Your task to perform on an android device: turn off notifications settings in the gmail app Image 0: 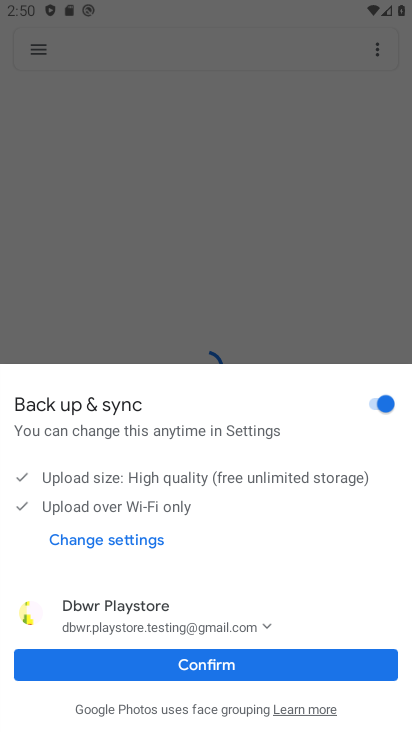
Step 0: click (241, 664)
Your task to perform on an android device: turn off notifications settings in the gmail app Image 1: 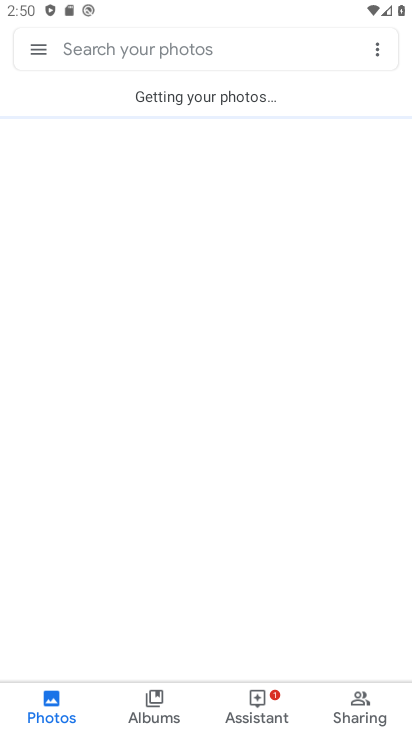
Step 1: click (32, 47)
Your task to perform on an android device: turn off notifications settings in the gmail app Image 2: 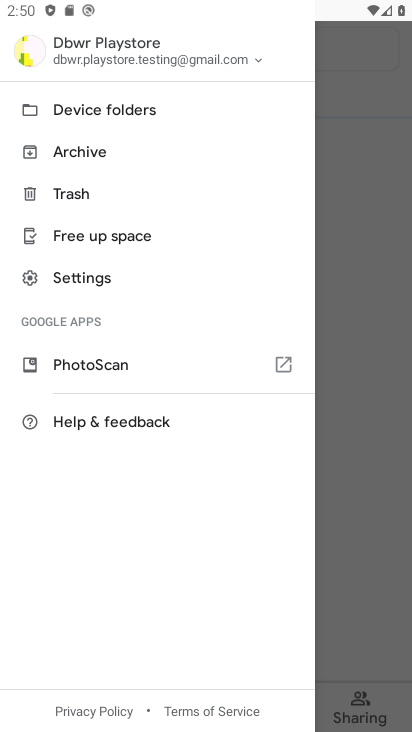
Step 2: click (96, 274)
Your task to perform on an android device: turn off notifications settings in the gmail app Image 3: 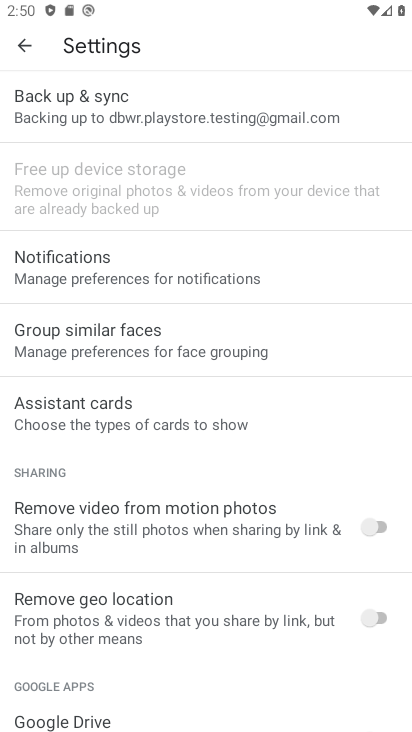
Step 3: click (187, 270)
Your task to perform on an android device: turn off notifications settings in the gmail app Image 4: 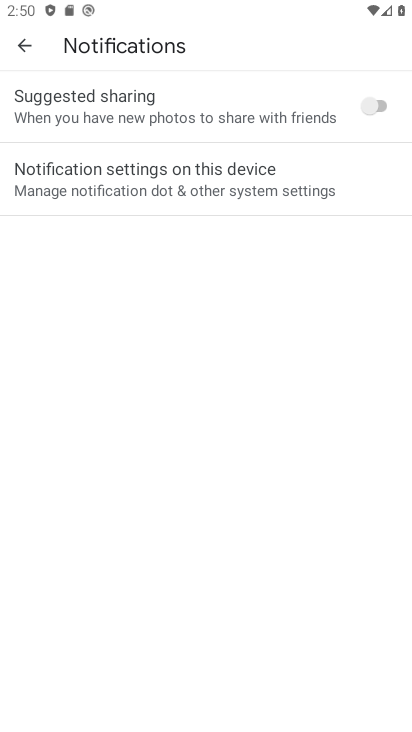
Step 4: click (250, 179)
Your task to perform on an android device: turn off notifications settings in the gmail app Image 5: 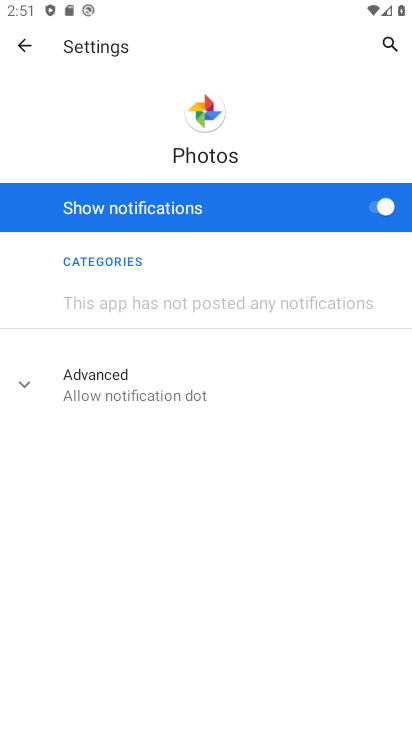
Step 5: press back button
Your task to perform on an android device: turn off notifications settings in the gmail app Image 6: 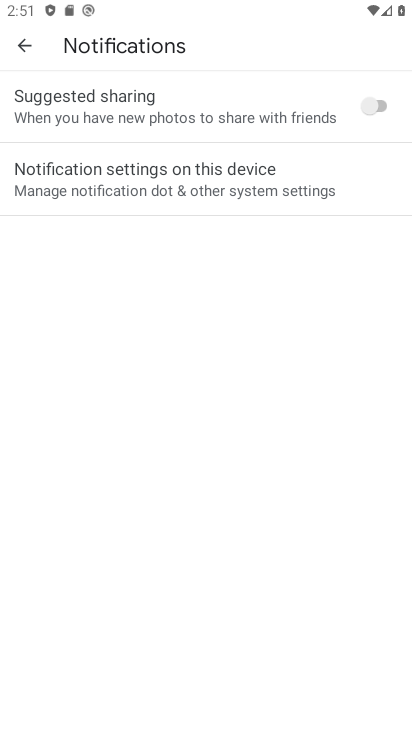
Step 6: press back button
Your task to perform on an android device: turn off notifications settings in the gmail app Image 7: 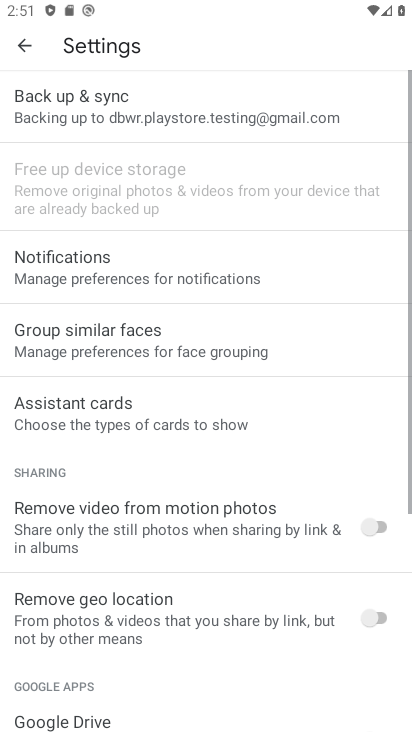
Step 7: press back button
Your task to perform on an android device: turn off notifications settings in the gmail app Image 8: 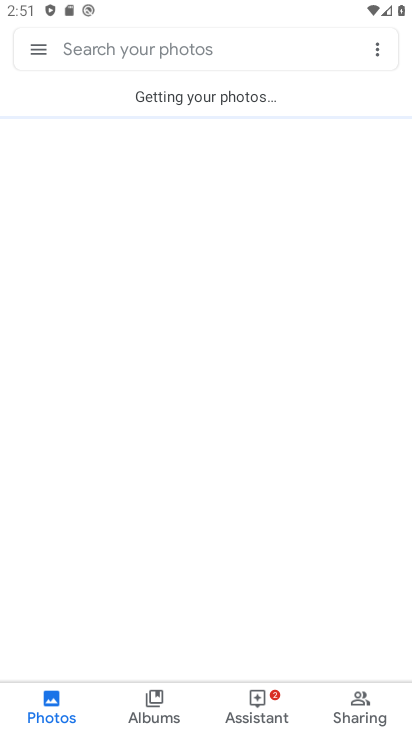
Step 8: press back button
Your task to perform on an android device: turn off notifications settings in the gmail app Image 9: 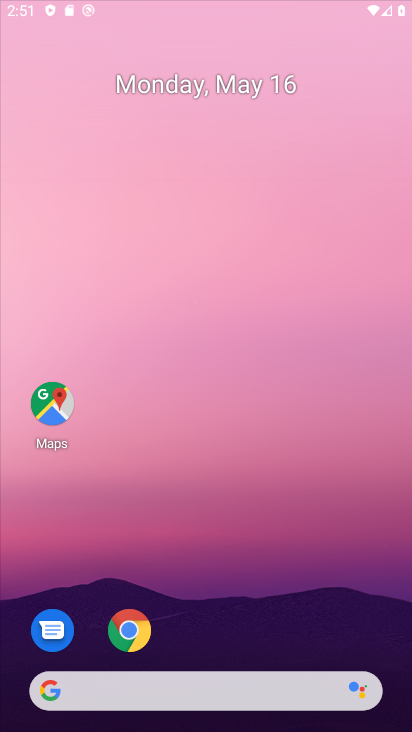
Step 9: press back button
Your task to perform on an android device: turn off notifications settings in the gmail app Image 10: 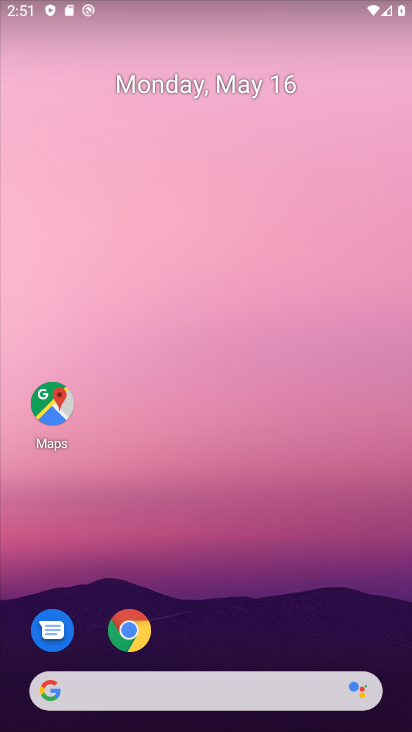
Step 10: drag from (244, 596) to (160, 25)
Your task to perform on an android device: turn off notifications settings in the gmail app Image 11: 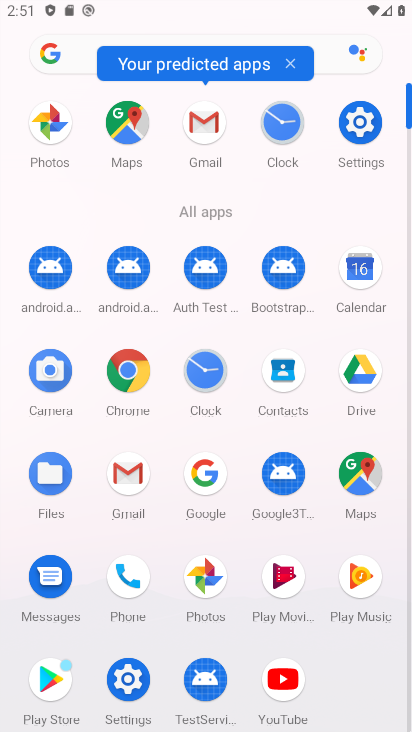
Step 11: click (128, 471)
Your task to perform on an android device: turn off notifications settings in the gmail app Image 12: 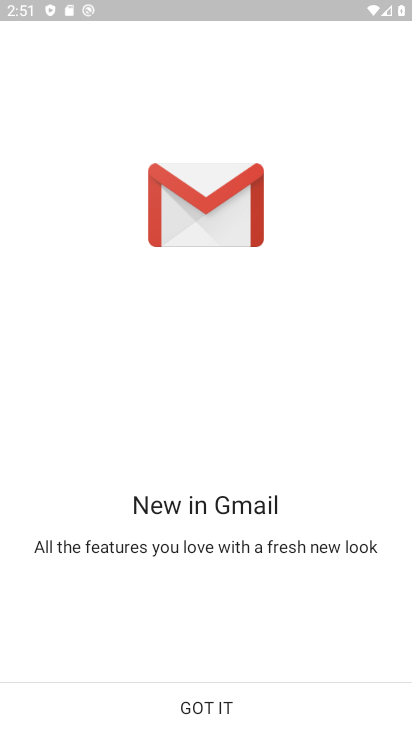
Step 12: click (214, 715)
Your task to perform on an android device: turn off notifications settings in the gmail app Image 13: 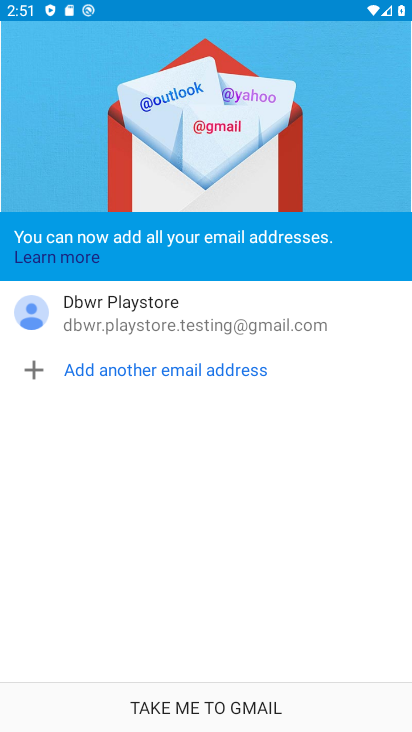
Step 13: click (179, 704)
Your task to perform on an android device: turn off notifications settings in the gmail app Image 14: 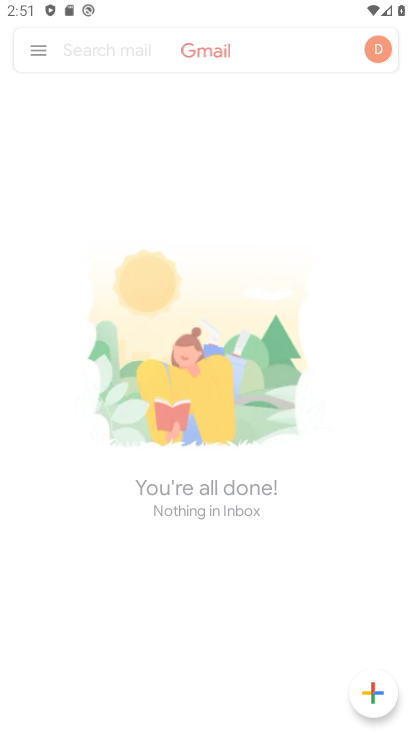
Step 14: click (37, 49)
Your task to perform on an android device: turn off notifications settings in the gmail app Image 15: 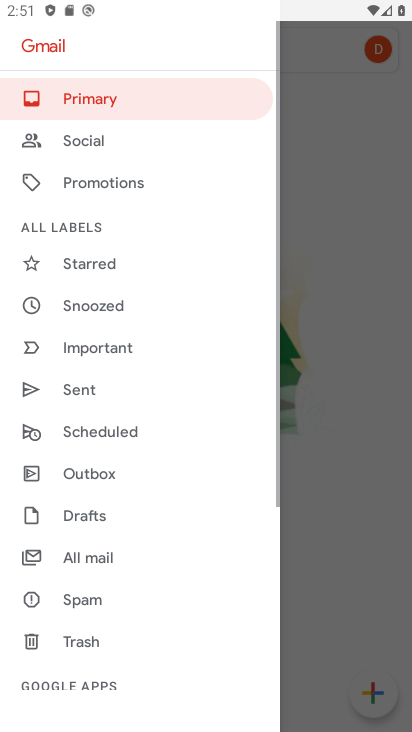
Step 15: drag from (180, 629) to (176, 125)
Your task to perform on an android device: turn off notifications settings in the gmail app Image 16: 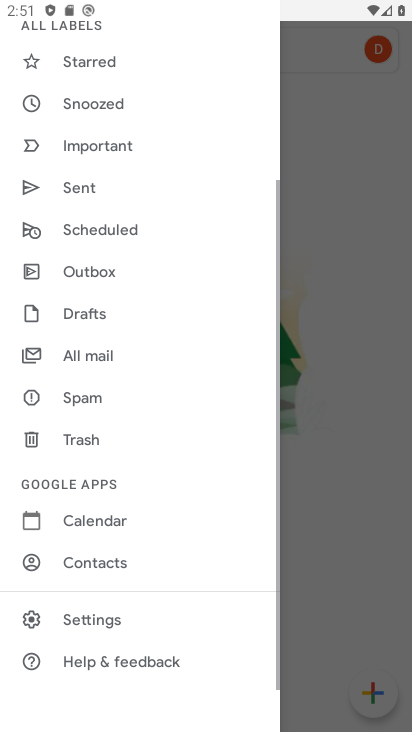
Step 16: click (116, 621)
Your task to perform on an android device: turn off notifications settings in the gmail app Image 17: 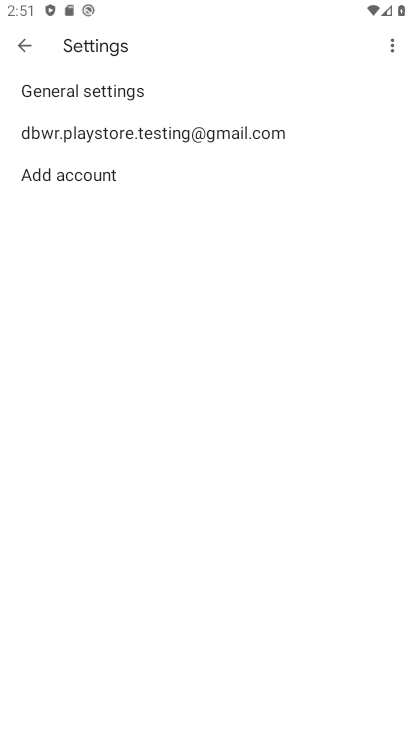
Step 17: click (138, 138)
Your task to perform on an android device: turn off notifications settings in the gmail app Image 18: 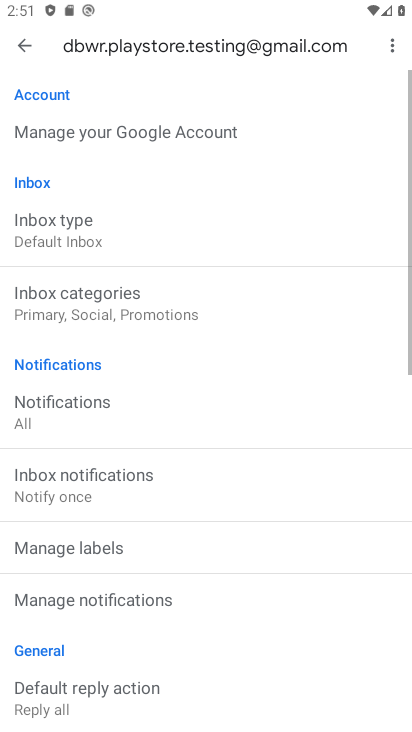
Step 18: drag from (237, 541) to (260, 143)
Your task to perform on an android device: turn off notifications settings in the gmail app Image 19: 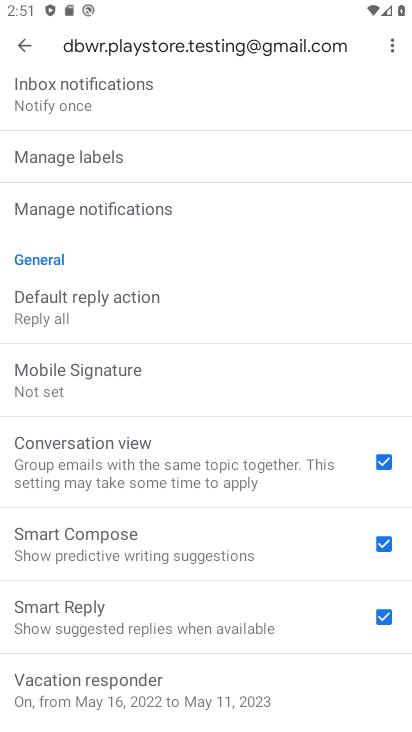
Step 19: drag from (196, 573) to (195, 158)
Your task to perform on an android device: turn off notifications settings in the gmail app Image 20: 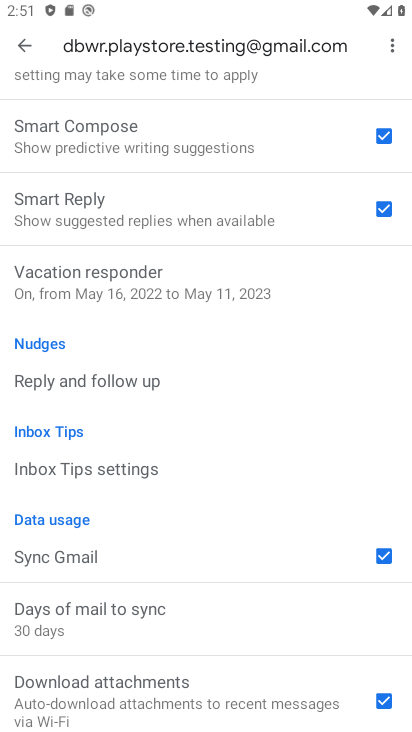
Step 20: drag from (187, 633) to (190, 191)
Your task to perform on an android device: turn off notifications settings in the gmail app Image 21: 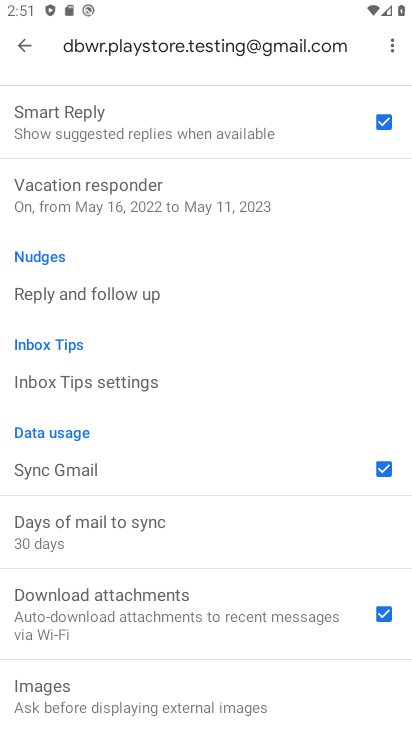
Step 21: drag from (204, 258) to (205, 210)
Your task to perform on an android device: turn off notifications settings in the gmail app Image 22: 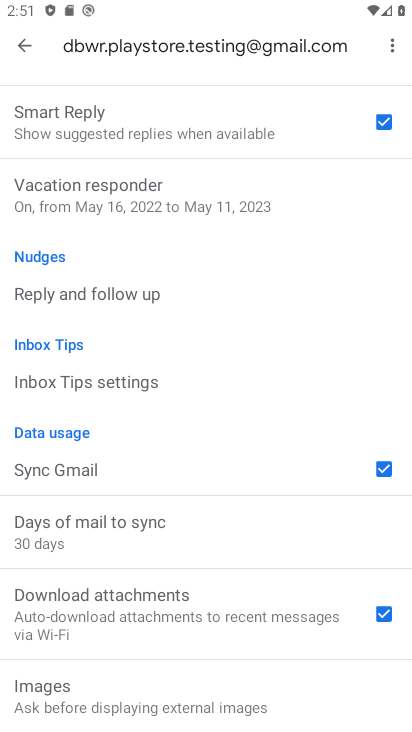
Step 22: drag from (232, 235) to (207, 613)
Your task to perform on an android device: turn off notifications settings in the gmail app Image 23: 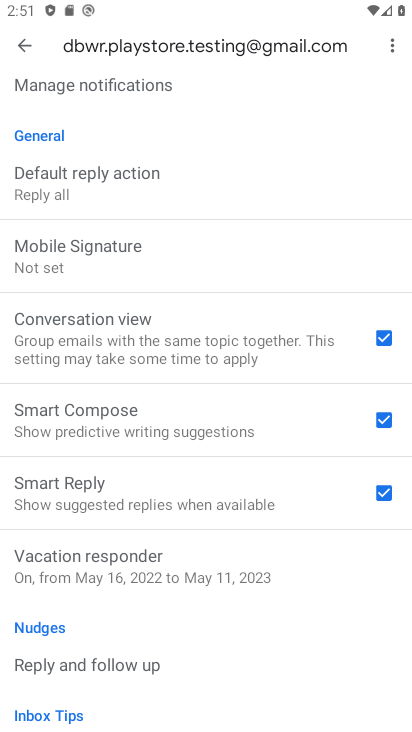
Step 23: drag from (200, 329) to (189, 637)
Your task to perform on an android device: turn off notifications settings in the gmail app Image 24: 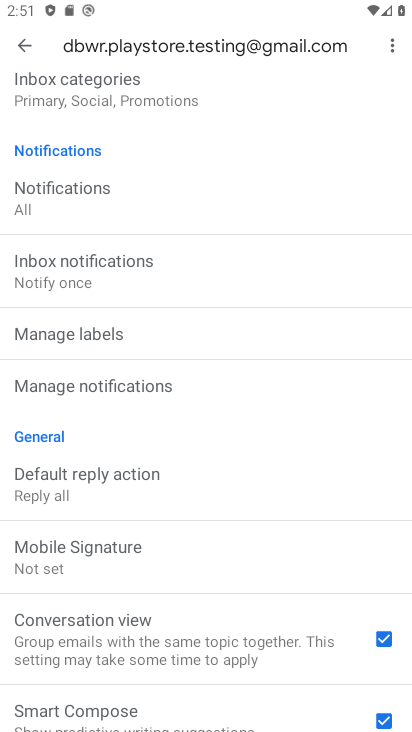
Step 24: drag from (181, 168) to (180, 588)
Your task to perform on an android device: turn off notifications settings in the gmail app Image 25: 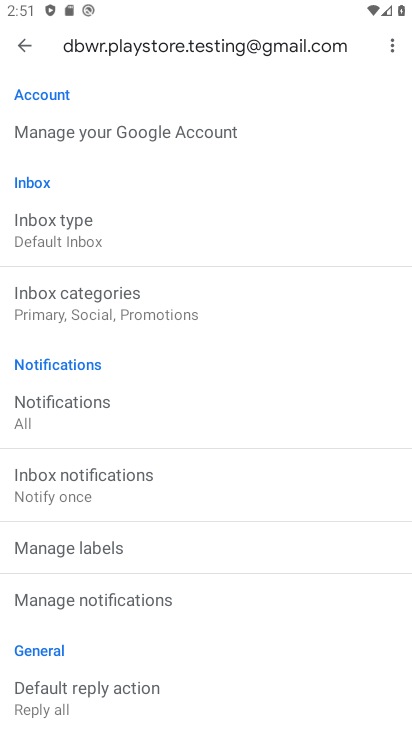
Step 25: drag from (205, 522) to (235, 225)
Your task to perform on an android device: turn off notifications settings in the gmail app Image 26: 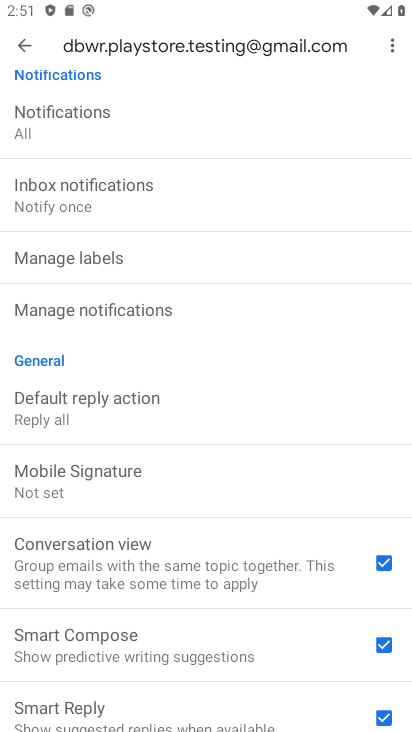
Step 26: drag from (200, 434) to (224, 134)
Your task to perform on an android device: turn off notifications settings in the gmail app Image 27: 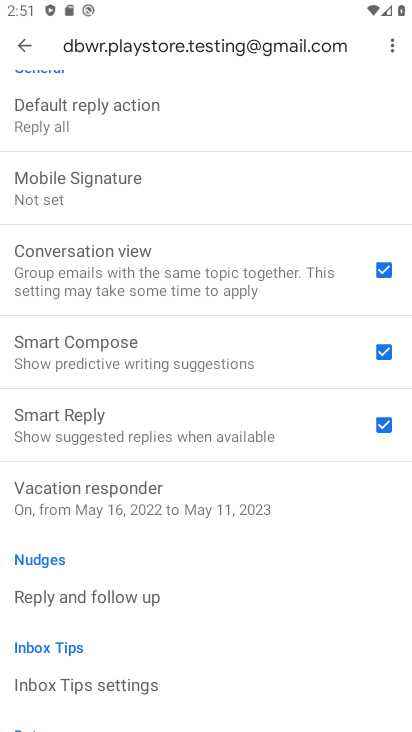
Step 27: drag from (212, 538) to (217, 117)
Your task to perform on an android device: turn off notifications settings in the gmail app Image 28: 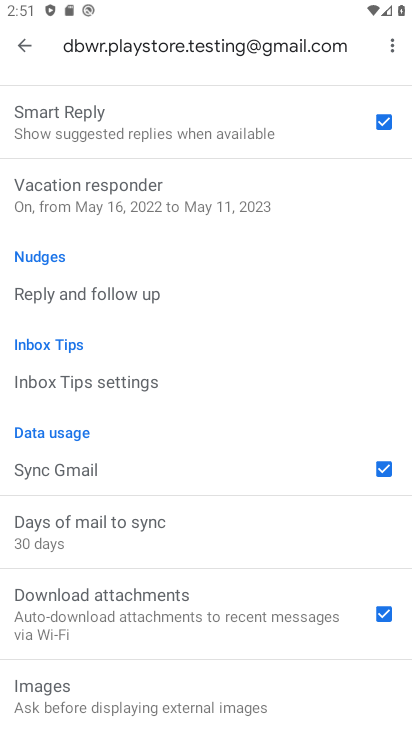
Step 28: drag from (222, 217) to (214, 587)
Your task to perform on an android device: turn off notifications settings in the gmail app Image 29: 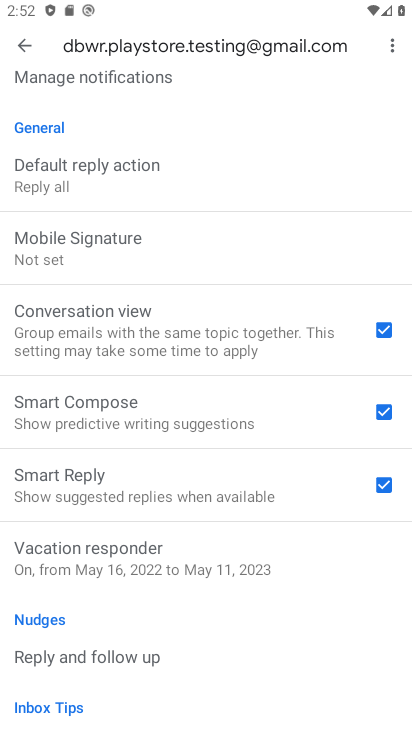
Step 29: drag from (237, 279) to (237, 627)
Your task to perform on an android device: turn off notifications settings in the gmail app Image 30: 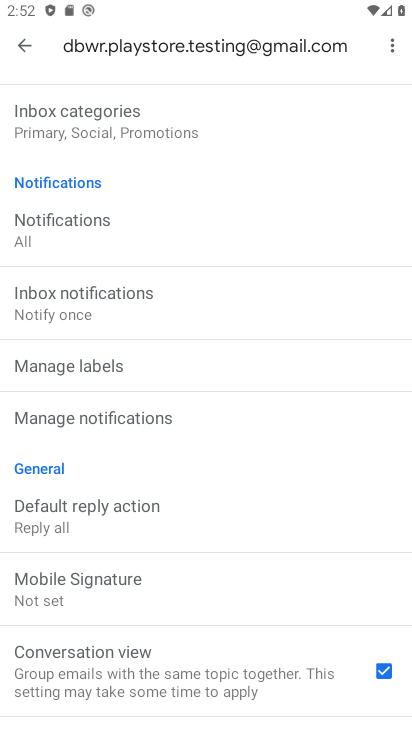
Step 30: click (161, 414)
Your task to perform on an android device: turn off notifications settings in the gmail app Image 31: 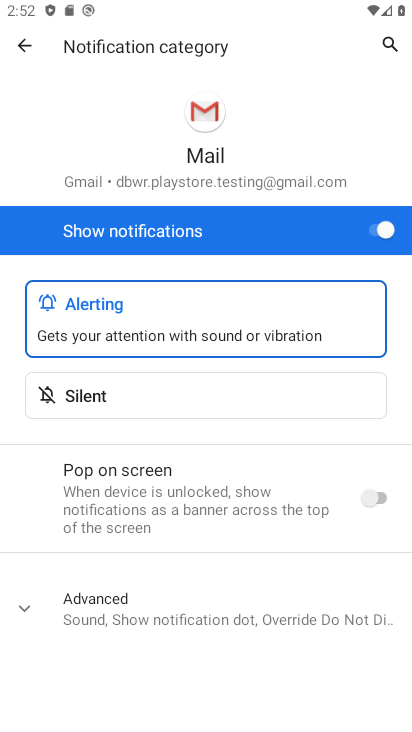
Step 31: click (378, 224)
Your task to perform on an android device: turn off notifications settings in the gmail app Image 32: 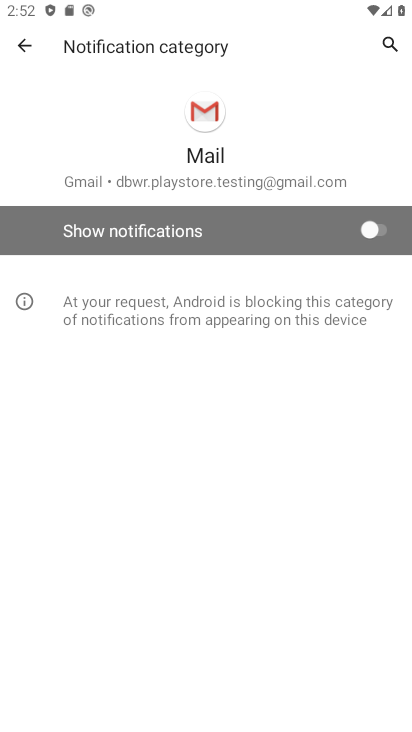
Step 32: task complete